Your task to perform on an android device: Show me recent news Image 0: 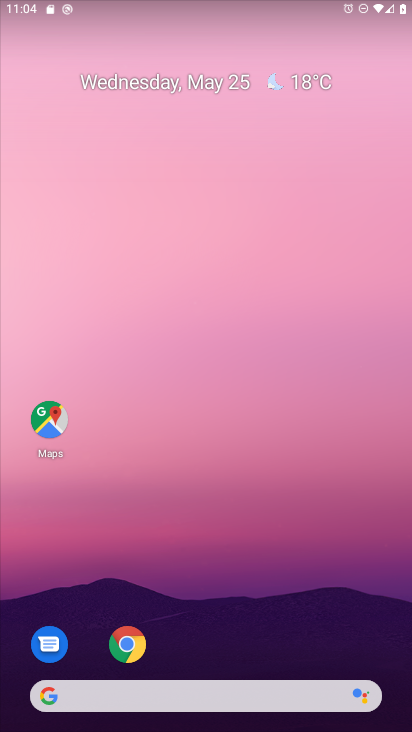
Step 0: press home button
Your task to perform on an android device: Show me recent news Image 1: 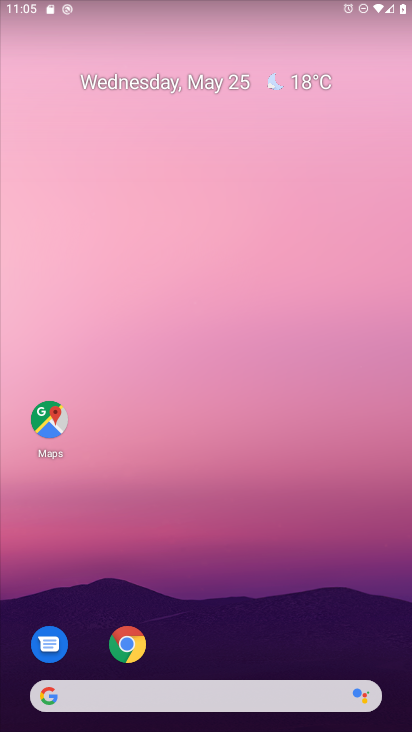
Step 1: task complete